Your task to perform on an android device: Open the calendar and show me this week's events? Image 0: 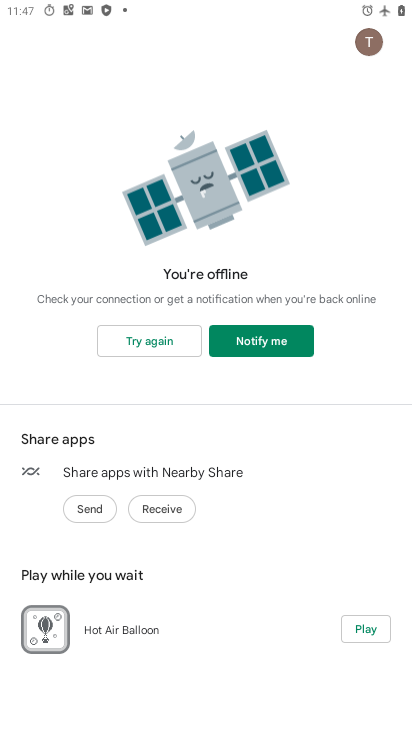
Step 0: press home button
Your task to perform on an android device: Open the calendar and show me this week's events? Image 1: 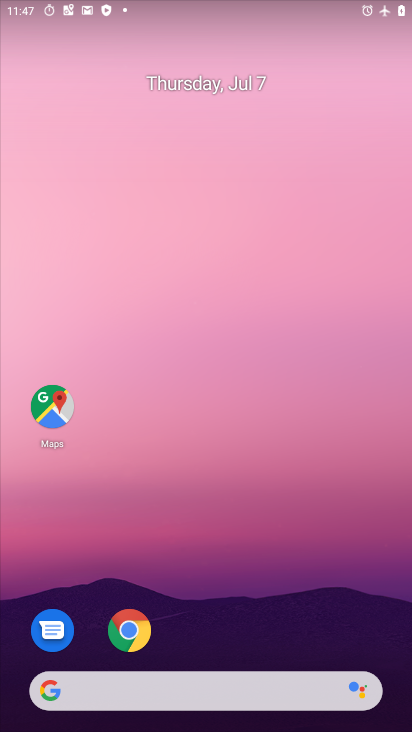
Step 1: drag from (222, 634) to (158, 213)
Your task to perform on an android device: Open the calendar and show me this week's events? Image 2: 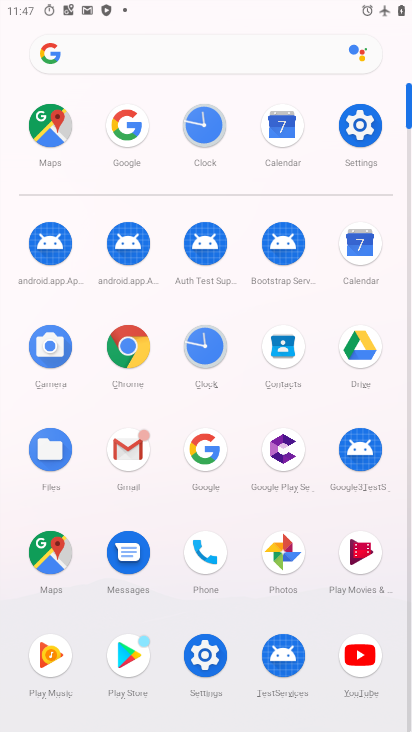
Step 2: click (351, 243)
Your task to perform on an android device: Open the calendar and show me this week's events? Image 3: 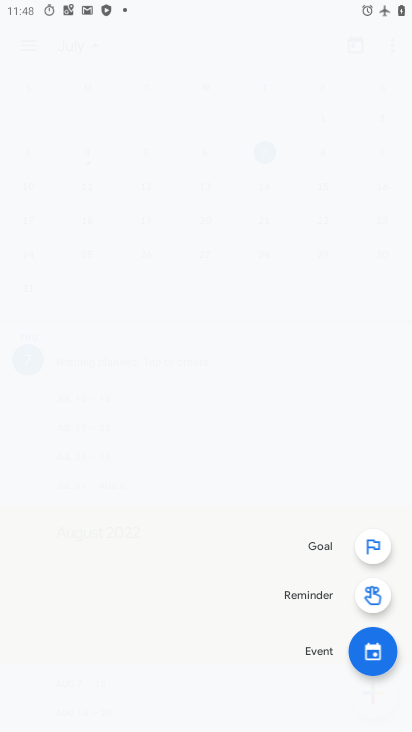
Step 3: press home button
Your task to perform on an android device: Open the calendar and show me this week's events? Image 4: 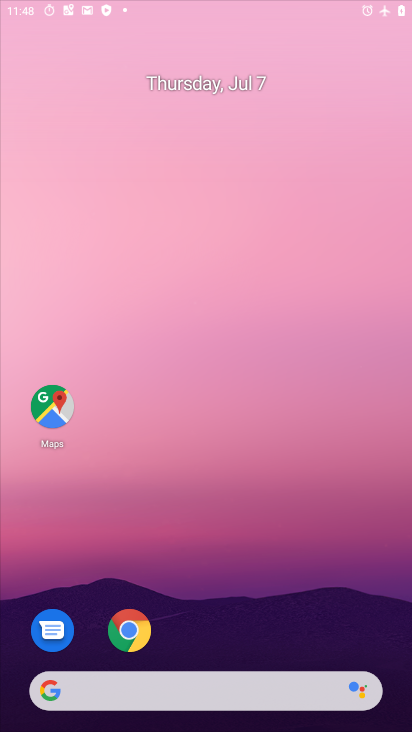
Step 4: drag from (294, 454) to (260, 87)
Your task to perform on an android device: Open the calendar and show me this week's events? Image 5: 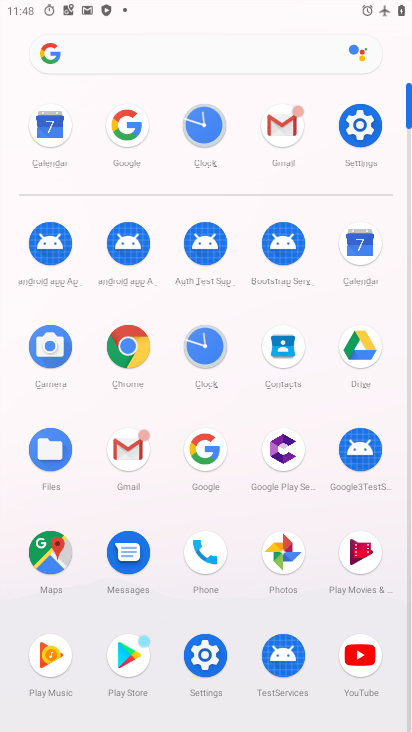
Step 5: click (353, 263)
Your task to perform on an android device: Open the calendar and show me this week's events? Image 6: 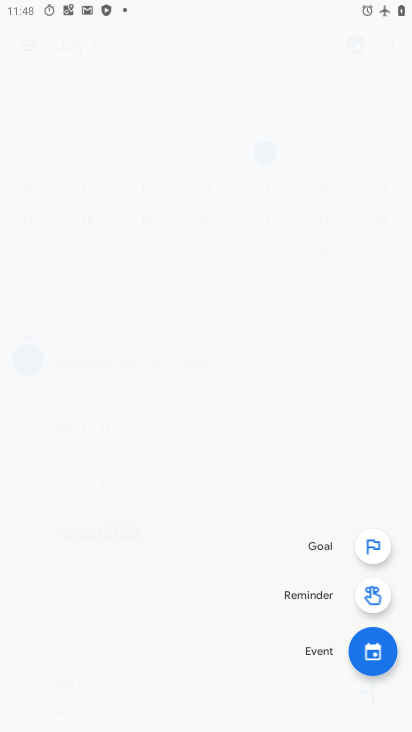
Step 6: task complete